Your task to perform on an android device: Open internet settings Image 0: 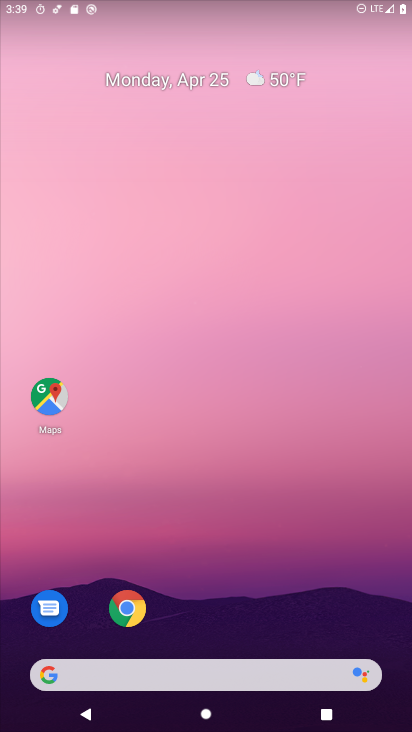
Step 0: drag from (199, 629) to (255, 159)
Your task to perform on an android device: Open internet settings Image 1: 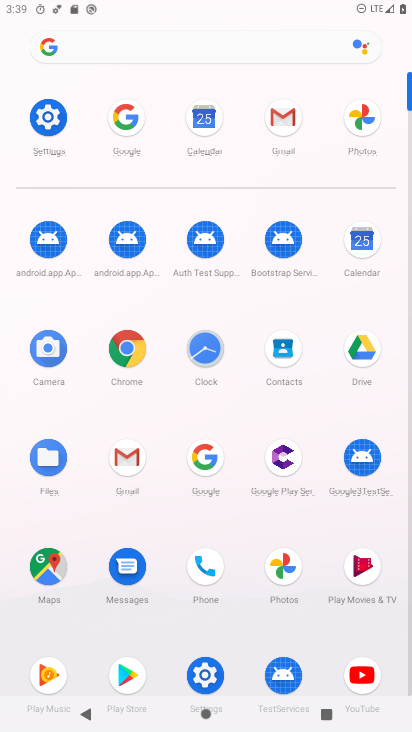
Step 1: click (53, 130)
Your task to perform on an android device: Open internet settings Image 2: 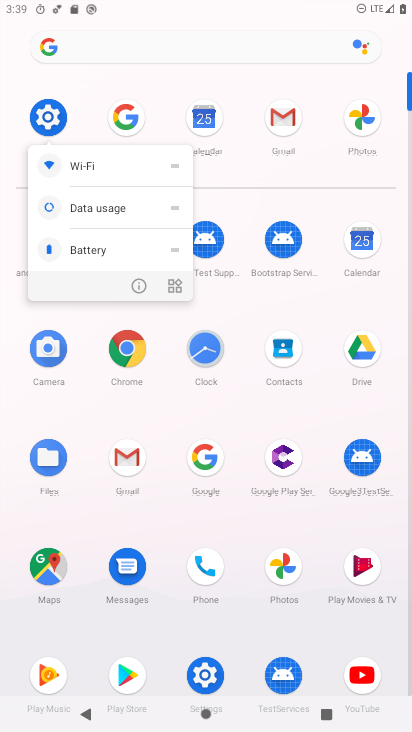
Step 2: click (53, 130)
Your task to perform on an android device: Open internet settings Image 3: 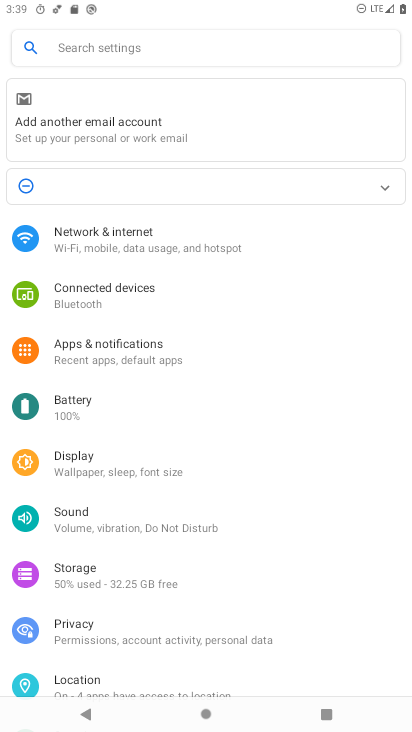
Step 3: click (113, 241)
Your task to perform on an android device: Open internet settings Image 4: 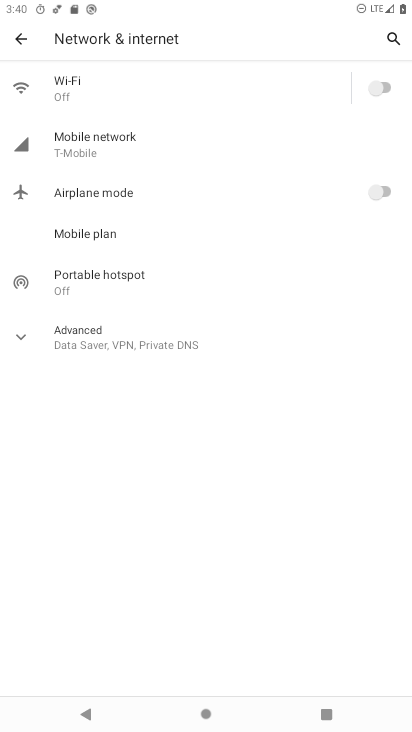
Step 4: task complete